Your task to perform on an android device: Go to settings Image 0: 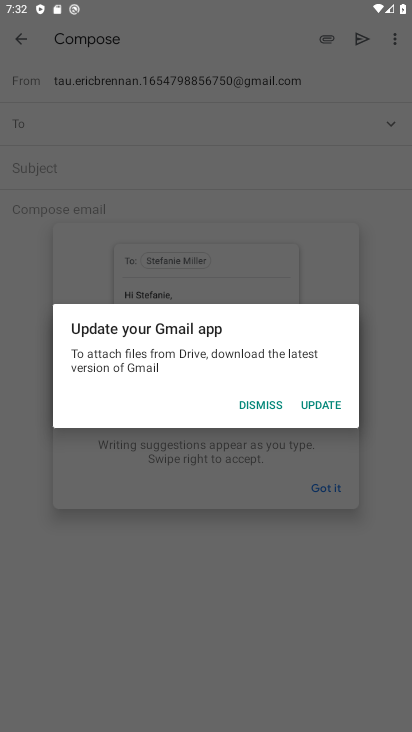
Step 0: press home button
Your task to perform on an android device: Go to settings Image 1: 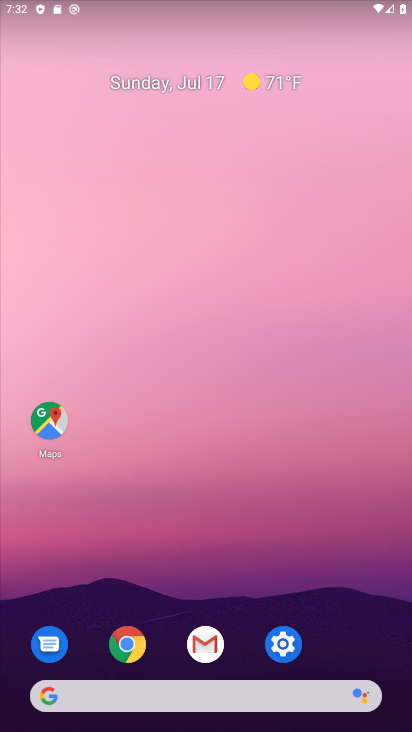
Step 1: click (301, 659)
Your task to perform on an android device: Go to settings Image 2: 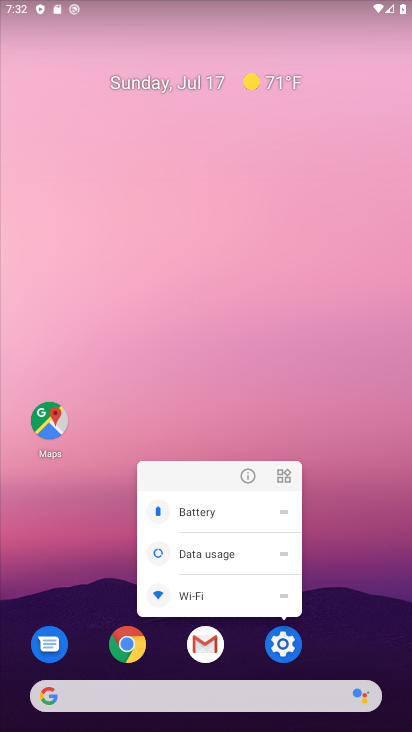
Step 2: click (288, 650)
Your task to perform on an android device: Go to settings Image 3: 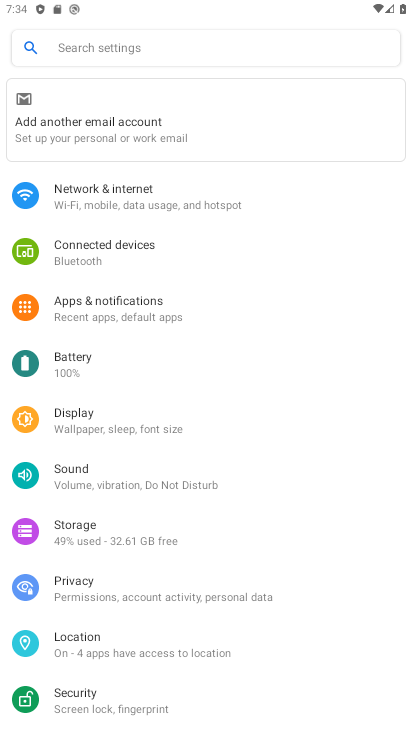
Step 3: task complete